Your task to perform on an android device: turn off sleep mode Image 0: 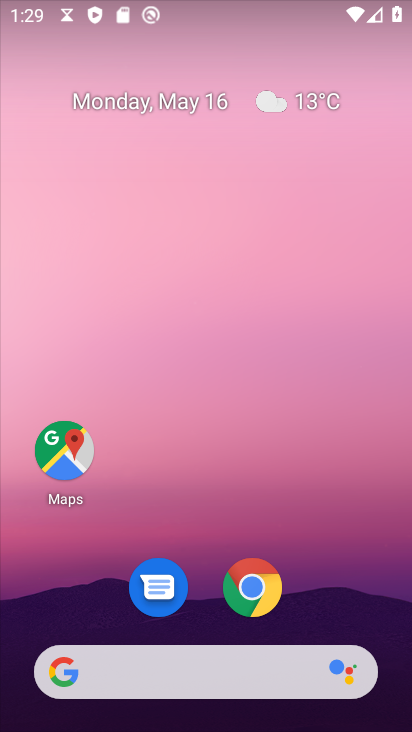
Step 0: drag from (171, 594) to (183, 306)
Your task to perform on an android device: turn off sleep mode Image 1: 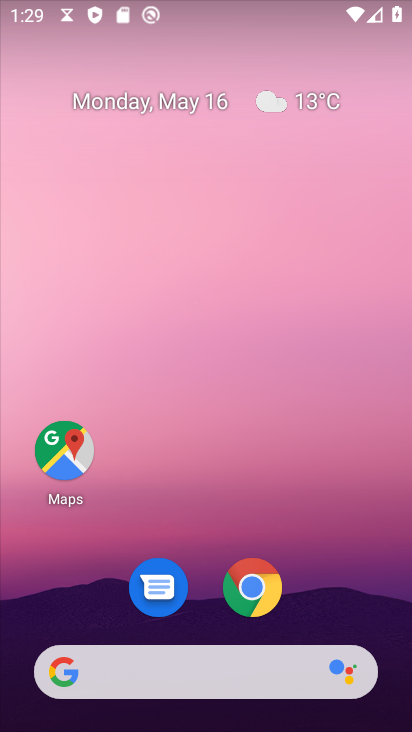
Step 1: drag from (176, 632) to (181, 191)
Your task to perform on an android device: turn off sleep mode Image 2: 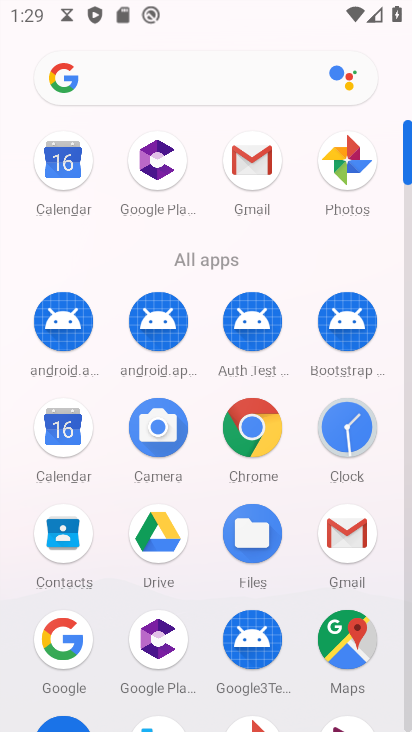
Step 2: drag from (202, 672) to (209, 293)
Your task to perform on an android device: turn off sleep mode Image 3: 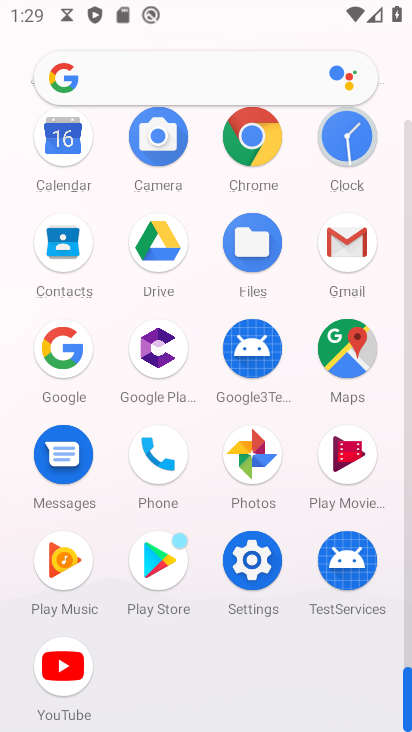
Step 3: click (249, 566)
Your task to perform on an android device: turn off sleep mode Image 4: 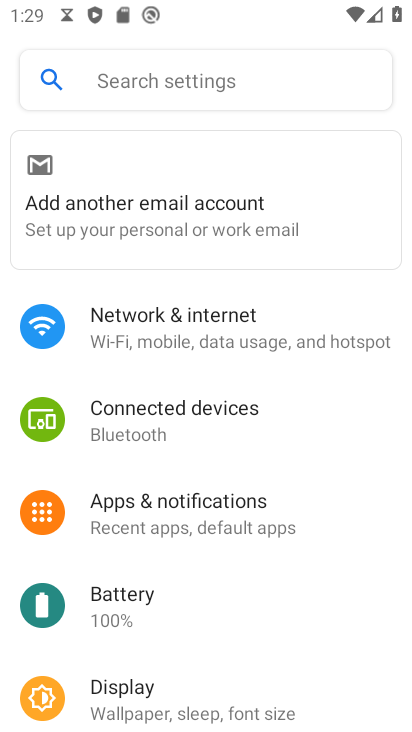
Step 4: click (212, 710)
Your task to perform on an android device: turn off sleep mode Image 5: 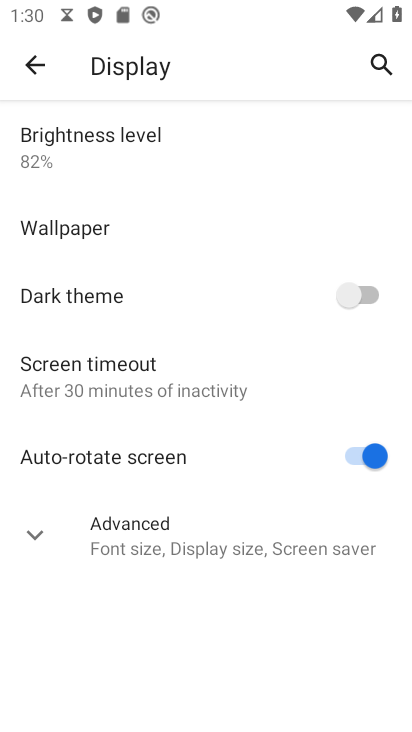
Step 5: click (89, 369)
Your task to perform on an android device: turn off sleep mode Image 6: 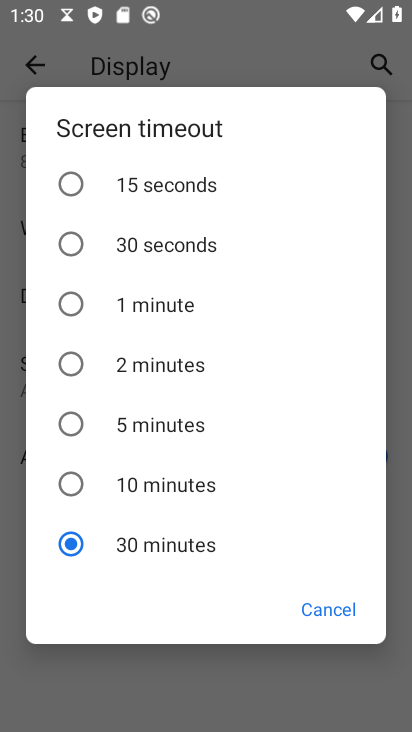
Step 6: click (110, 180)
Your task to perform on an android device: turn off sleep mode Image 7: 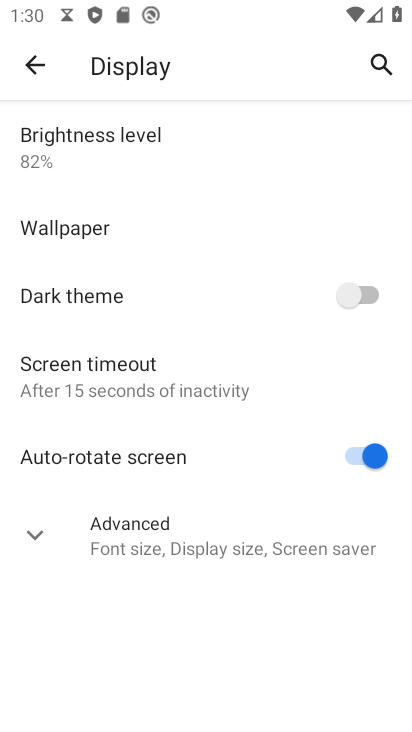
Step 7: task complete